Your task to perform on an android device: see tabs open on other devices in the chrome app Image 0: 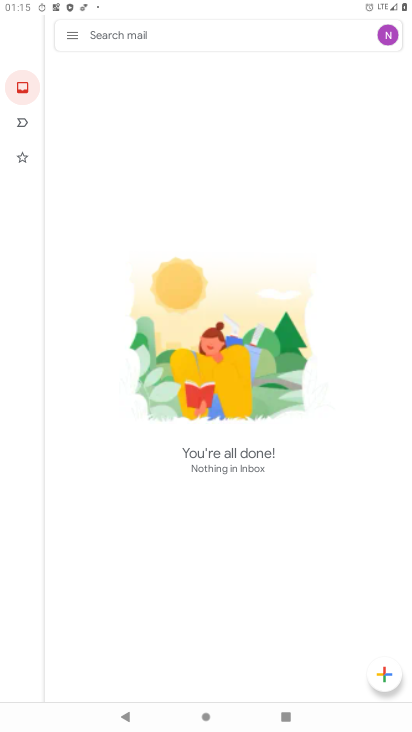
Step 0: press home button
Your task to perform on an android device: see tabs open on other devices in the chrome app Image 1: 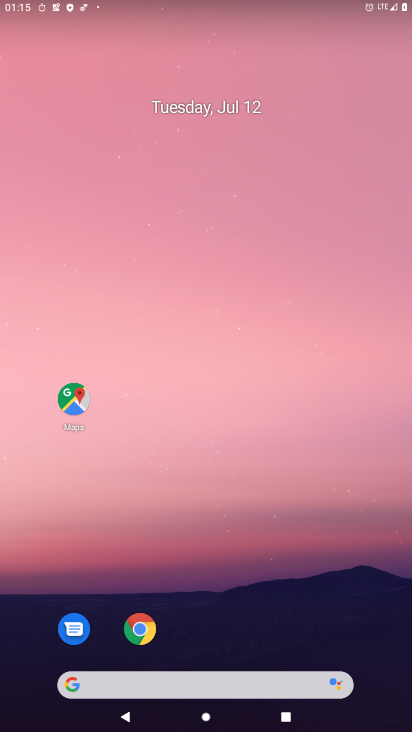
Step 1: click (153, 633)
Your task to perform on an android device: see tabs open on other devices in the chrome app Image 2: 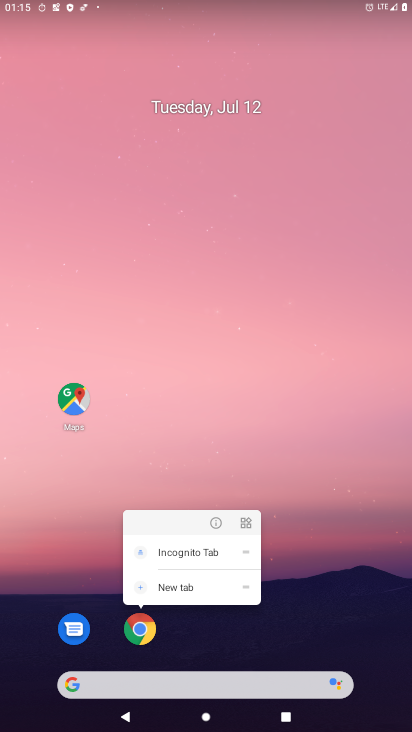
Step 2: click (139, 634)
Your task to perform on an android device: see tabs open on other devices in the chrome app Image 3: 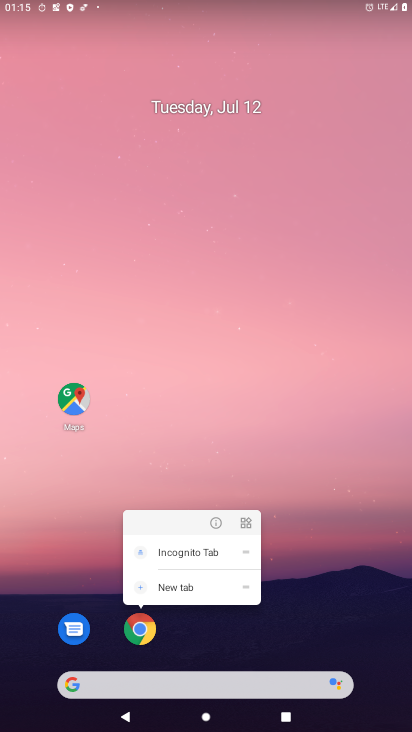
Step 3: click (139, 634)
Your task to perform on an android device: see tabs open on other devices in the chrome app Image 4: 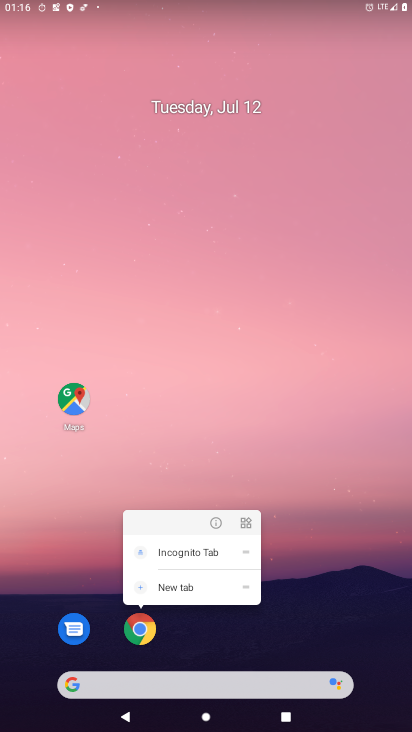
Step 4: task complete